Your task to perform on an android device: Open sound settings Image 0: 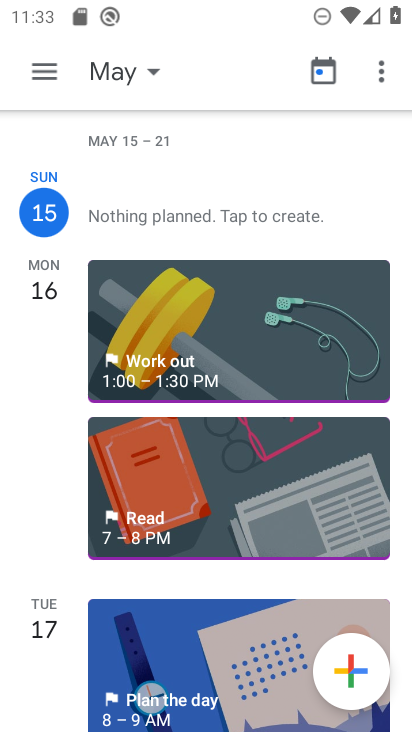
Step 0: press home button
Your task to perform on an android device: Open sound settings Image 1: 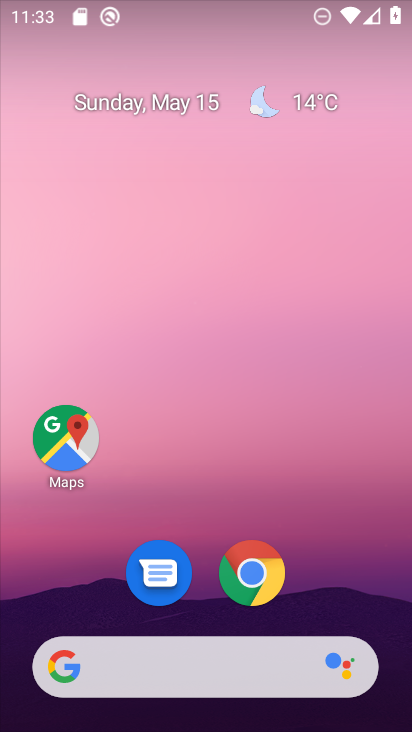
Step 1: drag from (308, 503) to (237, 101)
Your task to perform on an android device: Open sound settings Image 2: 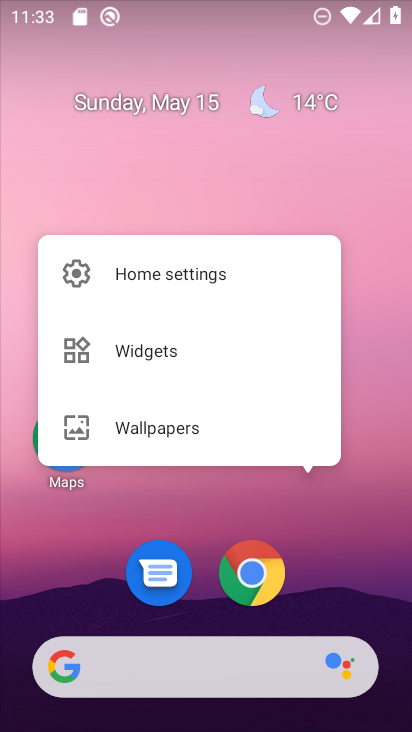
Step 2: click (362, 306)
Your task to perform on an android device: Open sound settings Image 3: 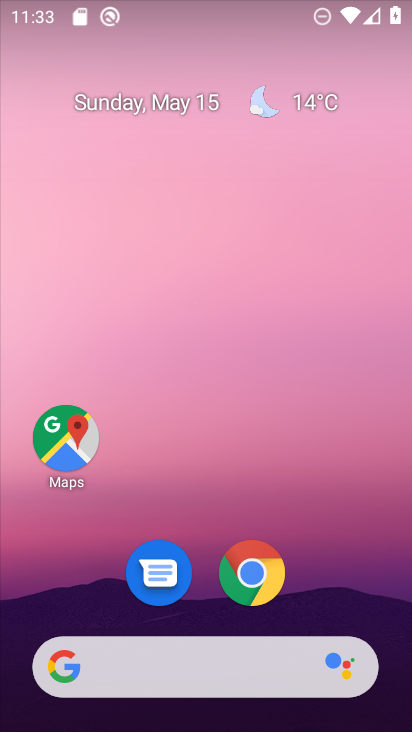
Step 3: drag from (210, 456) to (169, 33)
Your task to perform on an android device: Open sound settings Image 4: 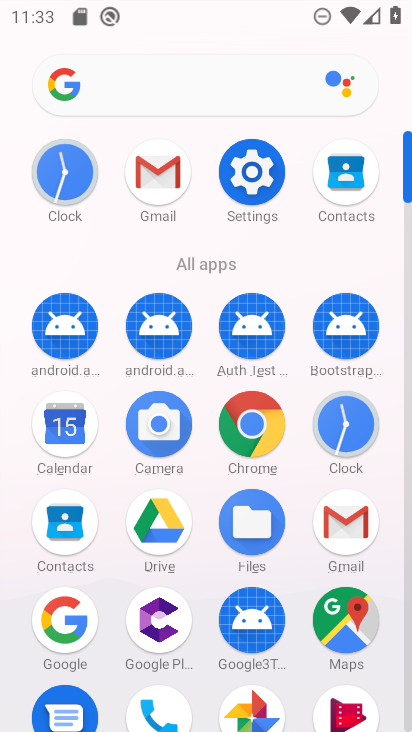
Step 4: click (249, 178)
Your task to perform on an android device: Open sound settings Image 5: 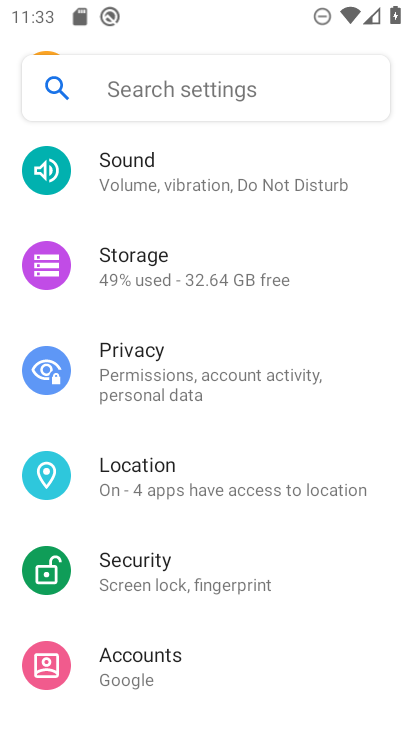
Step 5: click (120, 151)
Your task to perform on an android device: Open sound settings Image 6: 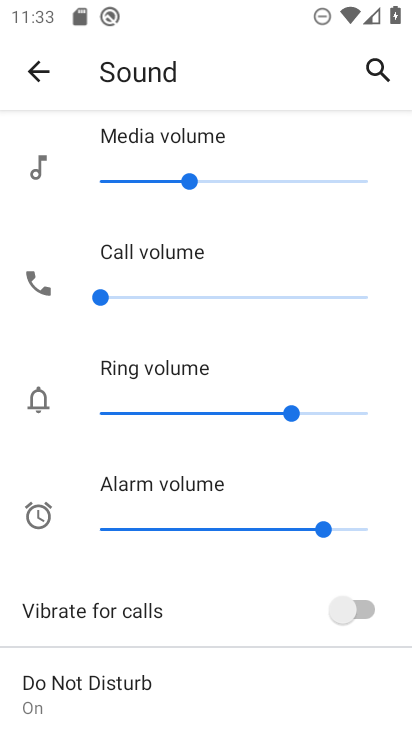
Step 6: task complete